Your task to perform on an android device: see creations saved in the google photos Image 0: 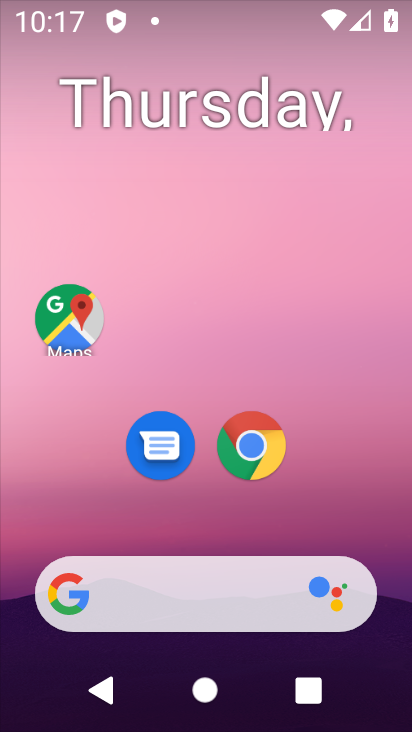
Step 0: drag from (232, 721) to (212, 125)
Your task to perform on an android device: see creations saved in the google photos Image 1: 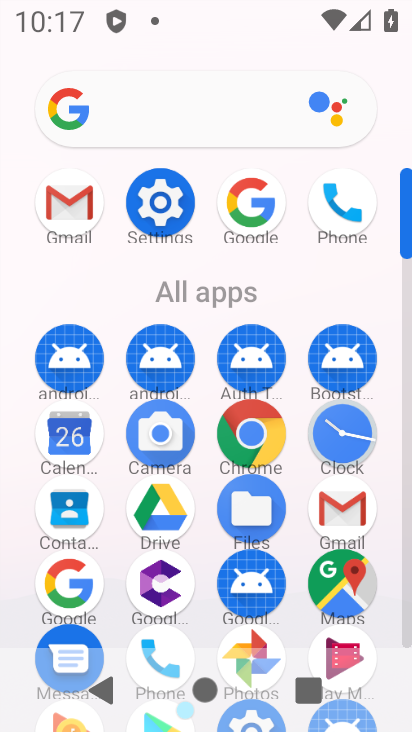
Step 1: drag from (294, 595) to (294, 297)
Your task to perform on an android device: see creations saved in the google photos Image 2: 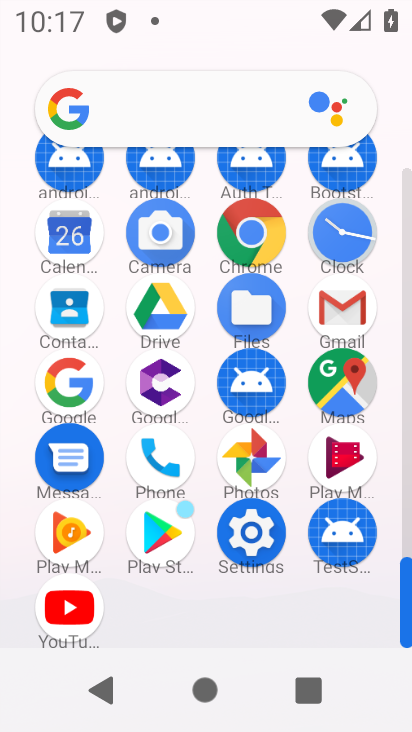
Step 2: click (262, 454)
Your task to perform on an android device: see creations saved in the google photos Image 3: 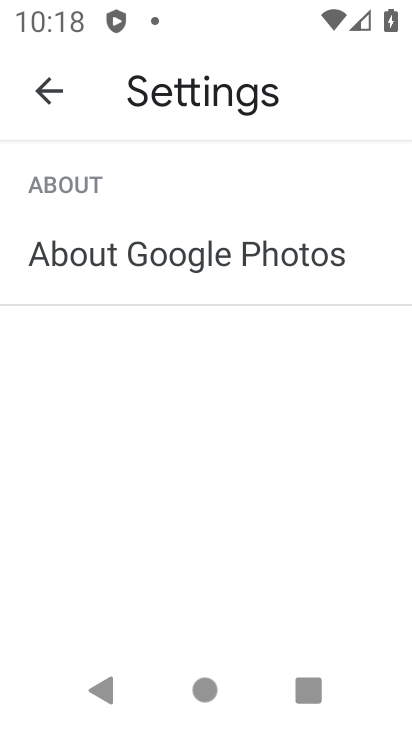
Step 3: click (53, 89)
Your task to perform on an android device: see creations saved in the google photos Image 4: 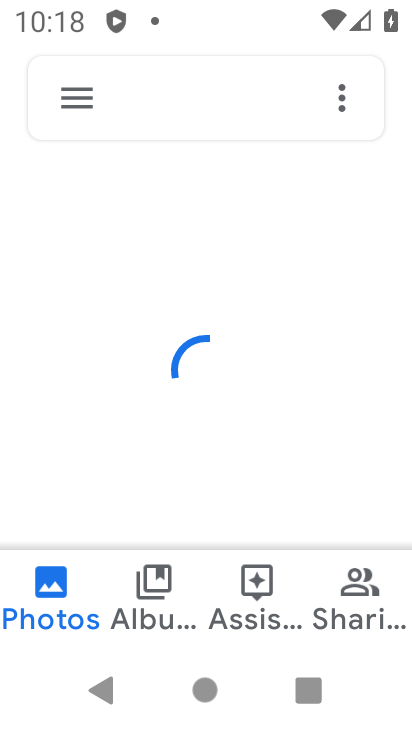
Step 4: click (212, 117)
Your task to perform on an android device: see creations saved in the google photos Image 5: 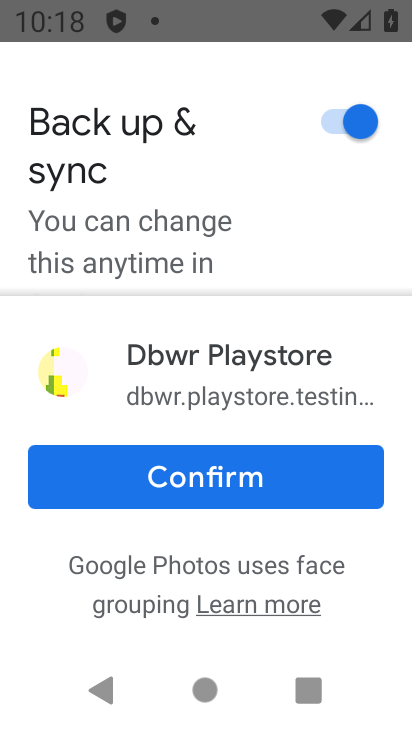
Step 5: click (192, 472)
Your task to perform on an android device: see creations saved in the google photos Image 6: 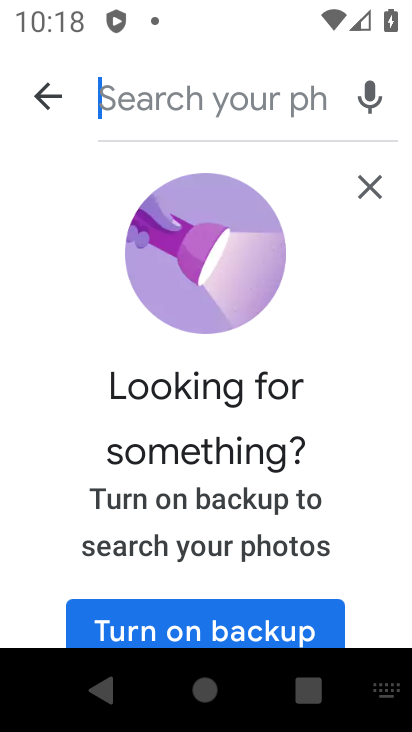
Step 6: click (378, 179)
Your task to perform on an android device: see creations saved in the google photos Image 7: 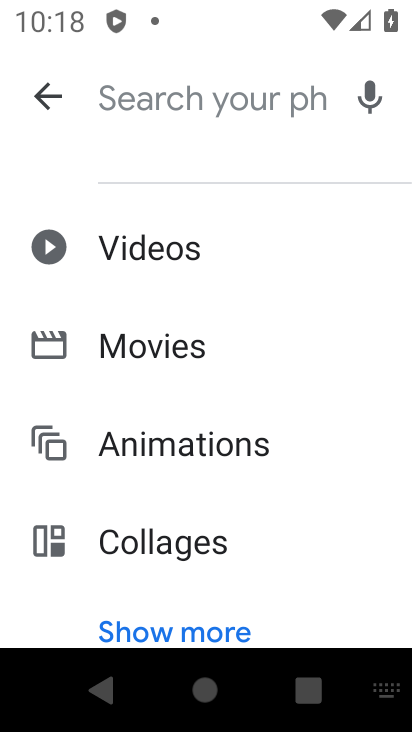
Step 7: click (154, 627)
Your task to perform on an android device: see creations saved in the google photos Image 8: 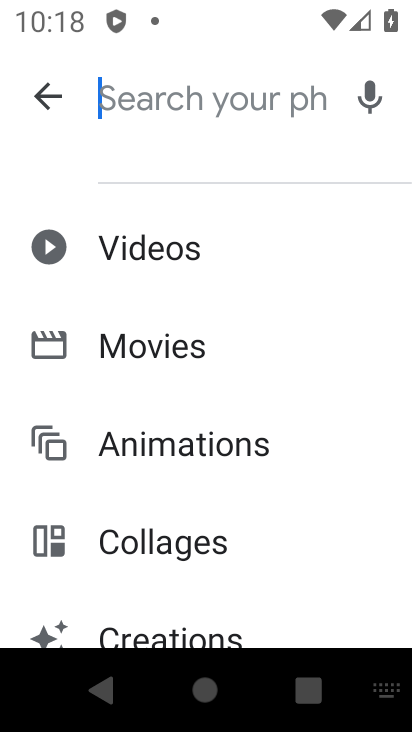
Step 8: click (184, 634)
Your task to perform on an android device: see creations saved in the google photos Image 9: 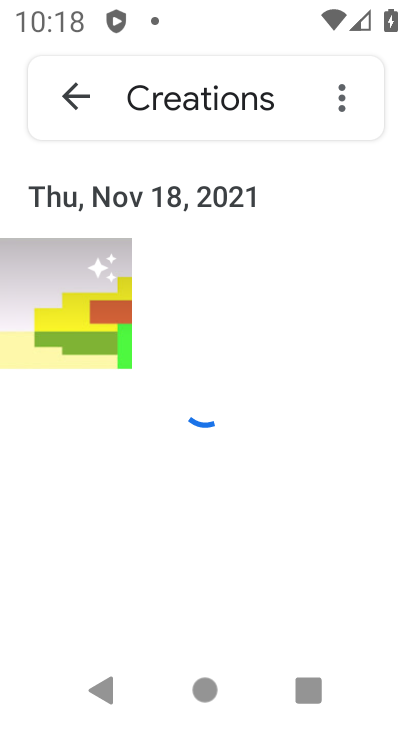
Step 9: task complete